Your task to perform on an android device: check out phone information Image 0: 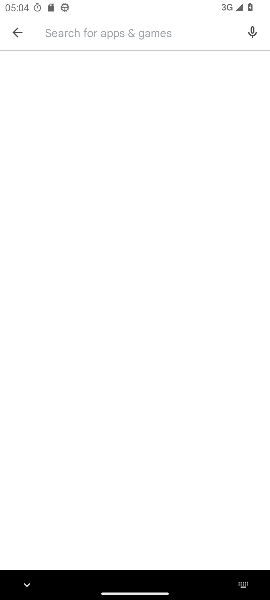
Step 0: press home button
Your task to perform on an android device: check out phone information Image 1: 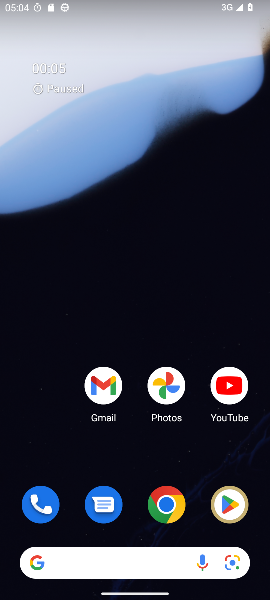
Step 1: drag from (24, 581) to (158, 207)
Your task to perform on an android device: check out phone information Image 2: 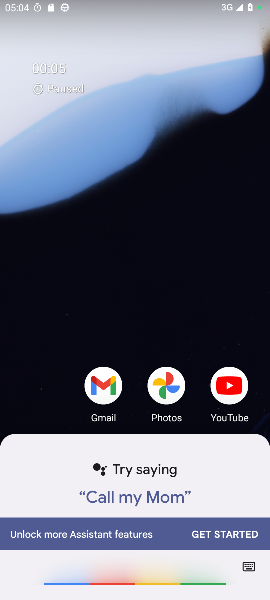
Step 2: click (157, 206)
Your task to perform on an android device: check out phone information Image 3: 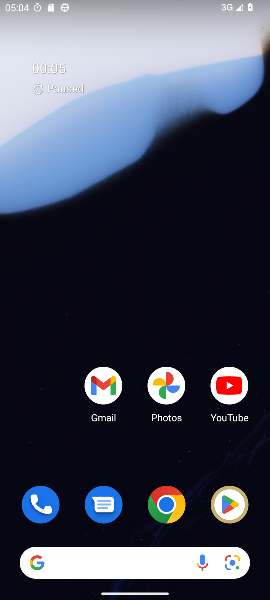
Step 3: drag from (21, 580) to (175, 23)
Your task to perform on an android device: check out phone information Image 4: 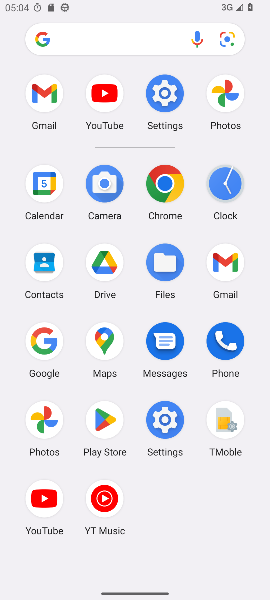
Step 4: click (230, 339)
Your task to perform on an android device: check out phone information Image 5: 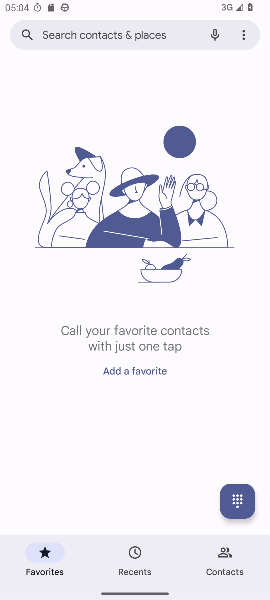
Step 5: click (148, 571)
Your task to perform on an android device: check out phone information Image 6: 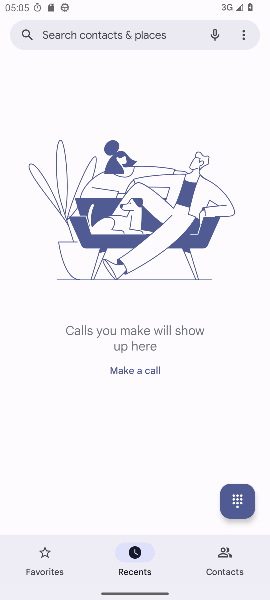
Step 6: task complete